Your task to perform on an android device: toggle javascript in the chrome app Image 0: 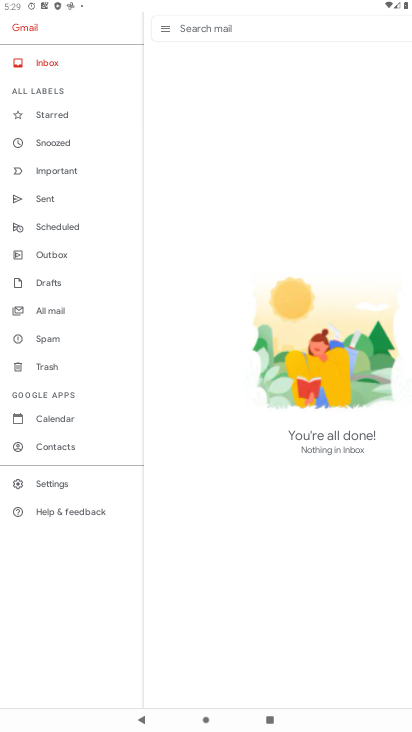
Step 0: drag from (373, 678) to (306, 178)
Your task to perform on an android device: toggle javascript in the chrome app Image 1: 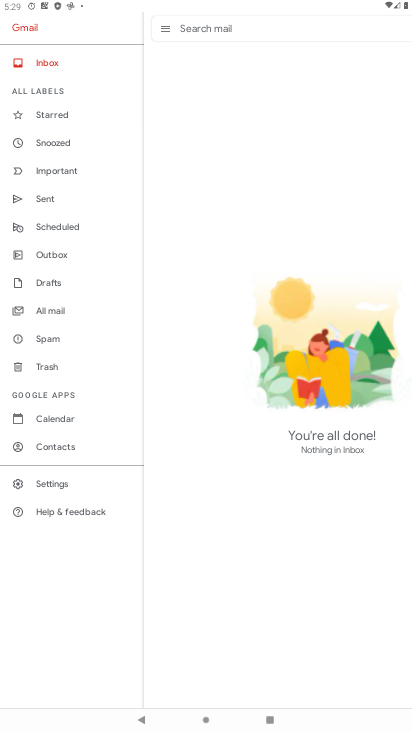
Step 1: press home button
Your task to perform on an android device: toggle javascript in the chrome app Image 2: 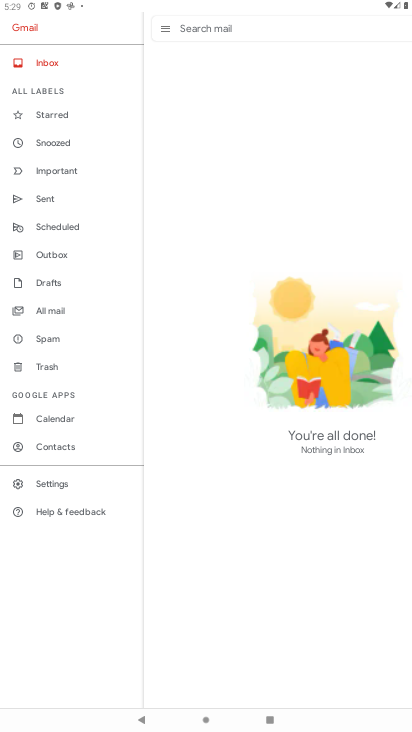
Step 2: drag from (361, 650) to (234, 0)
Your task to perform on an android device: toggle javascript in the chrome app Image 3: 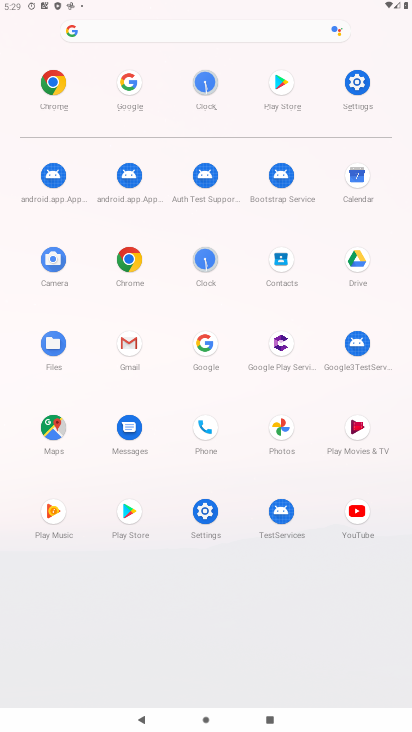
Step 3: click (50, 85)
Your task to perform on an android device: toggle javascript in the chrome app Image 4: 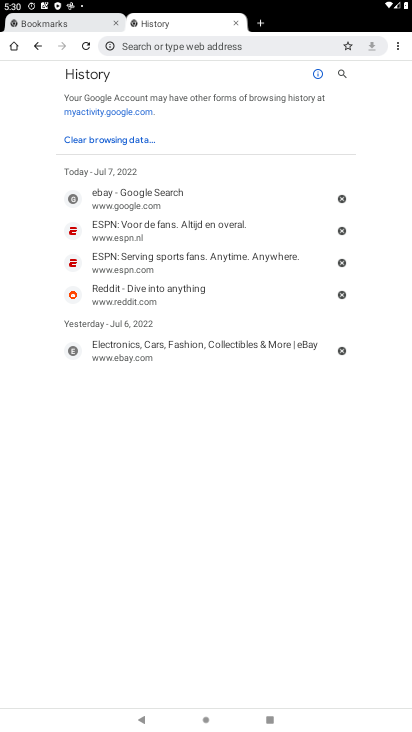
Step 4: click (394, 50)
Your task to perform on an android device: toggle javascript in the chrome app Image 5: 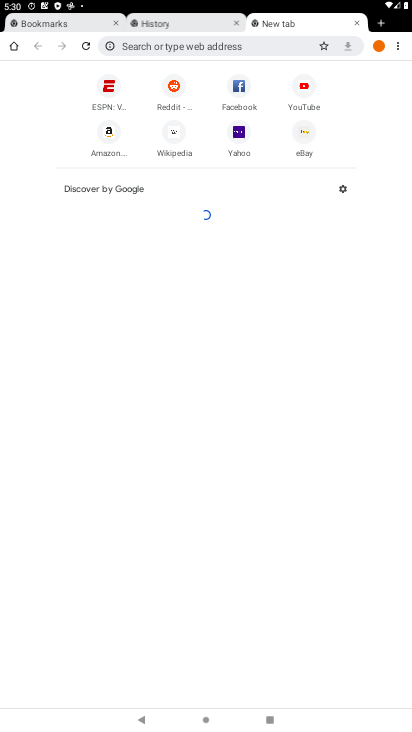
Step 5: click (399, 37)
Your task to perform on an android device: toggle javascript in the chrome app Image 6: 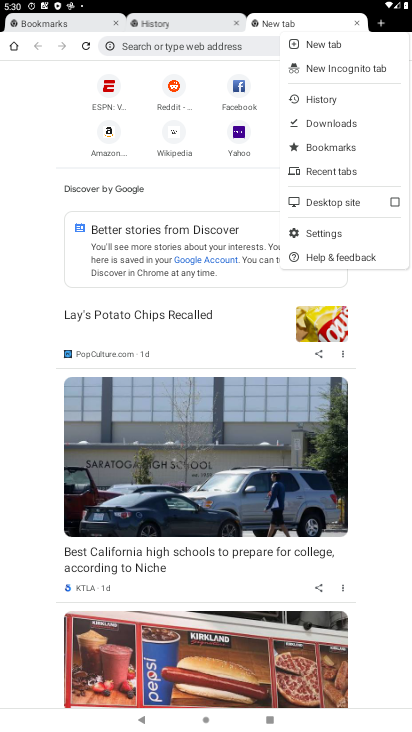
Step 6: click (323, 234)
Your task to perform on an android device: toggle javascript in the chrome app Image 7: 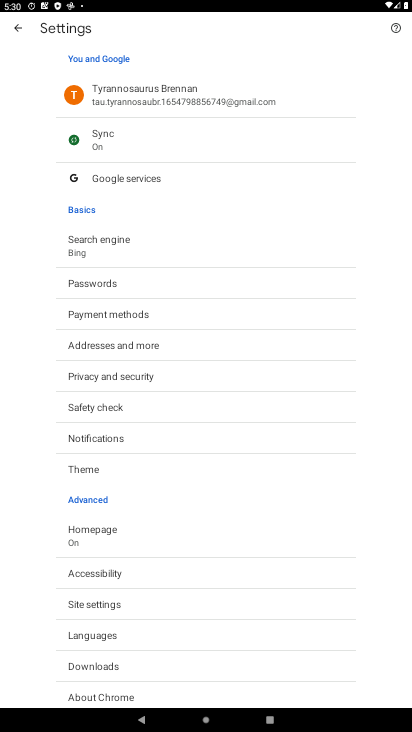
Step 7: click (137, 602)
Your task to perform on an android device: toggle javascript in the chrome app Image 8: 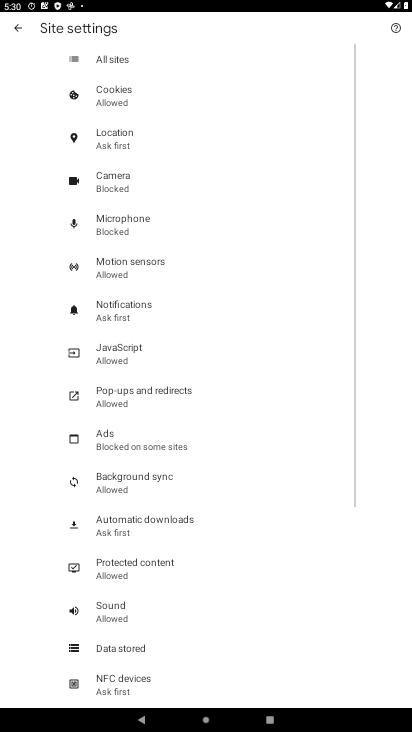
Step 8: click (138, 359)
Your task to perform on an android device: toggle javascript in the chrome app Image 9: 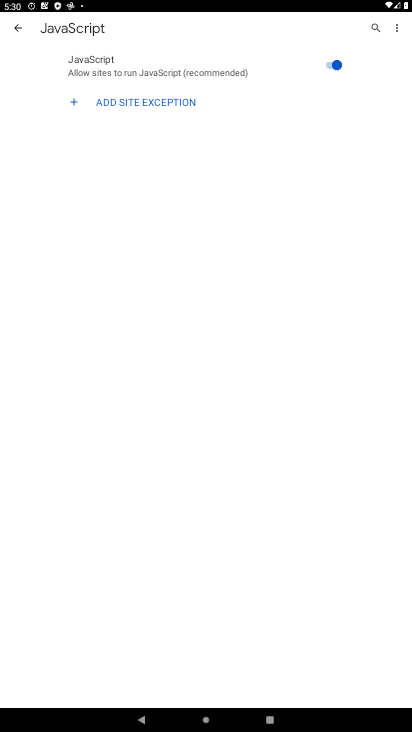
Step 9: click (329, 58)
Your task to perform on an android device: toggle javascript in the chrome app Image 10: 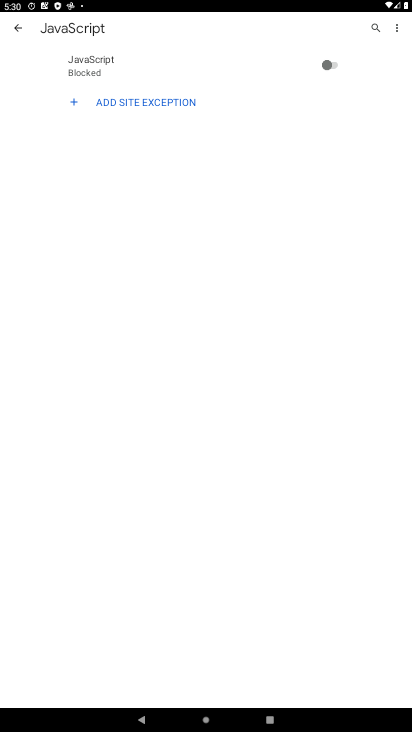
Step 10: task complete